Your task to perform on an android device: Find the nearest electronics store that's open today Image 0: 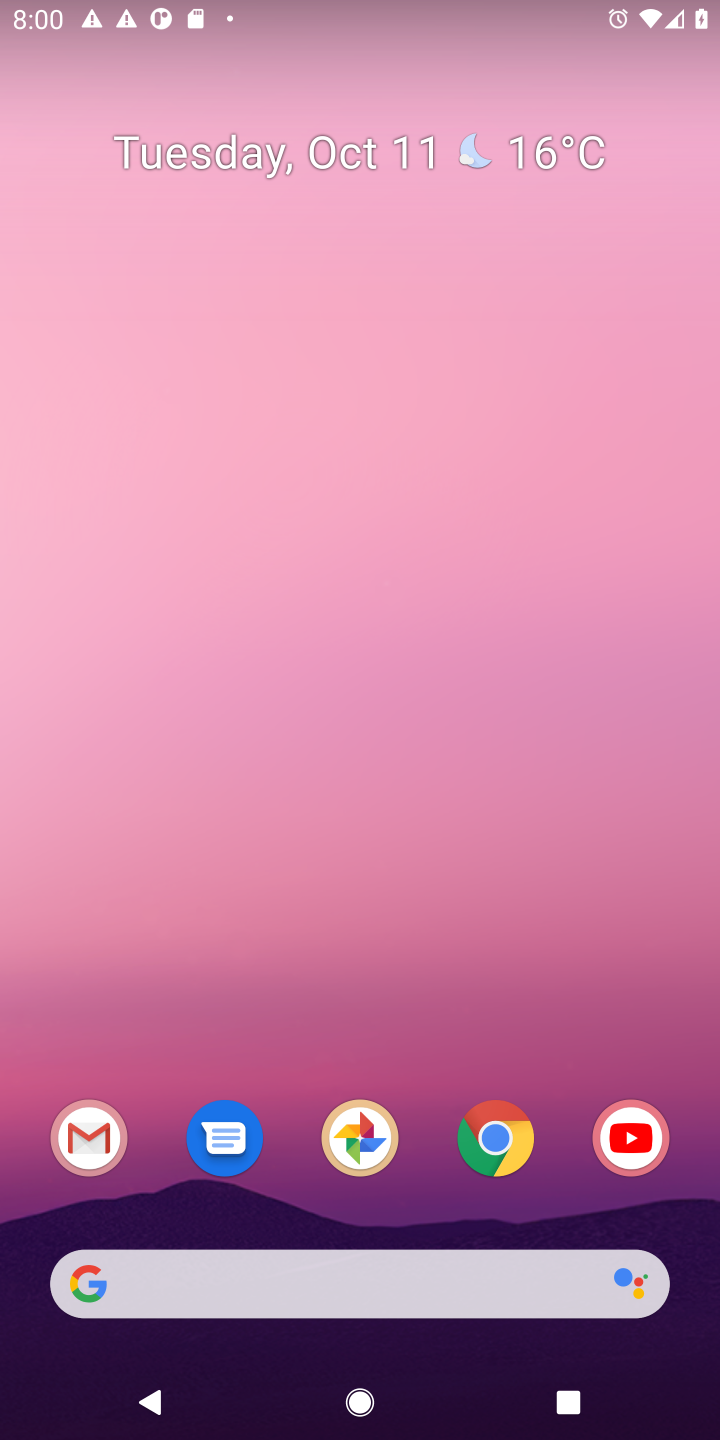
Step 0: click (376, 1276)
Your task to perform on an android device: Find the nearest electronics store that's open today Image 1: 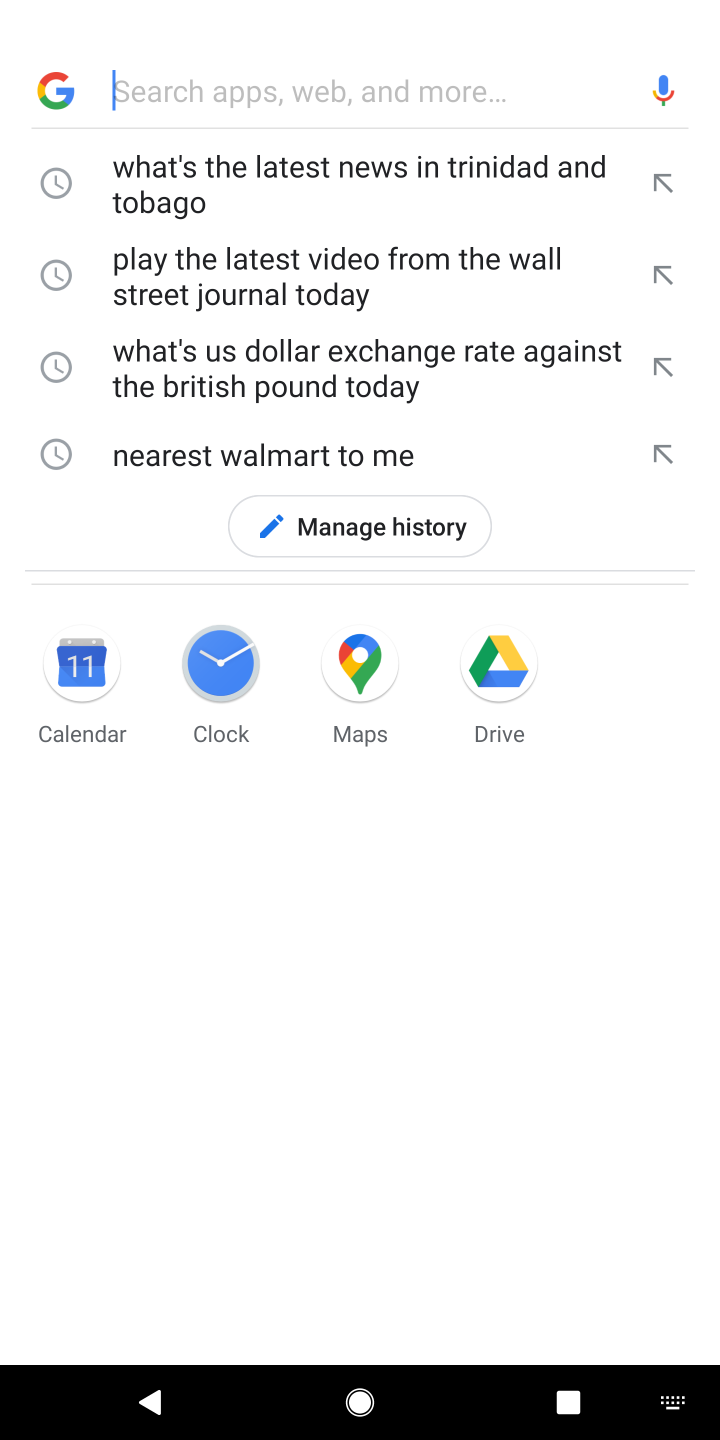
Step 1: type "Find the nearest electronics store that's open today"
Your task to perform on an android device: Find the nearest electronics store that's open today Image 2: 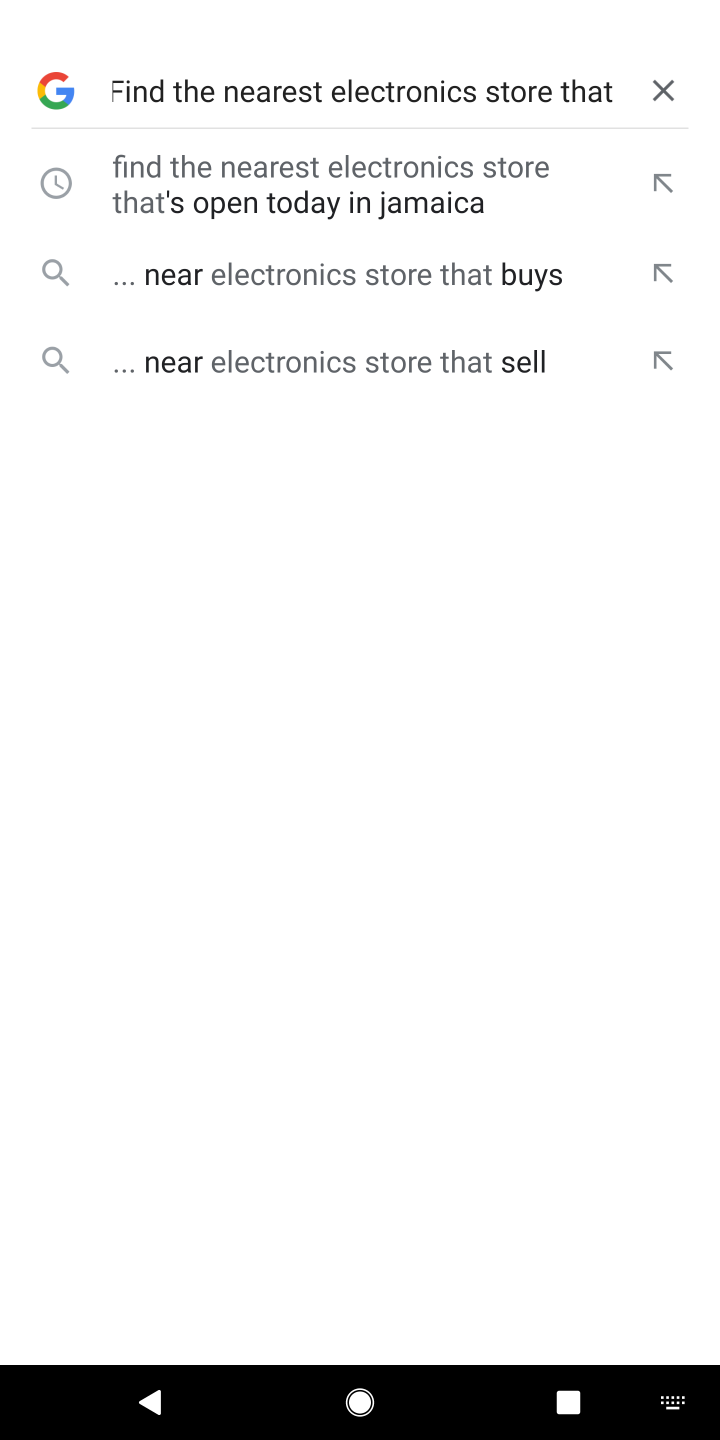
Step 2: type " open today"
Your task to perform on an android device: Find the nearest electronics store that's open today Image 3: 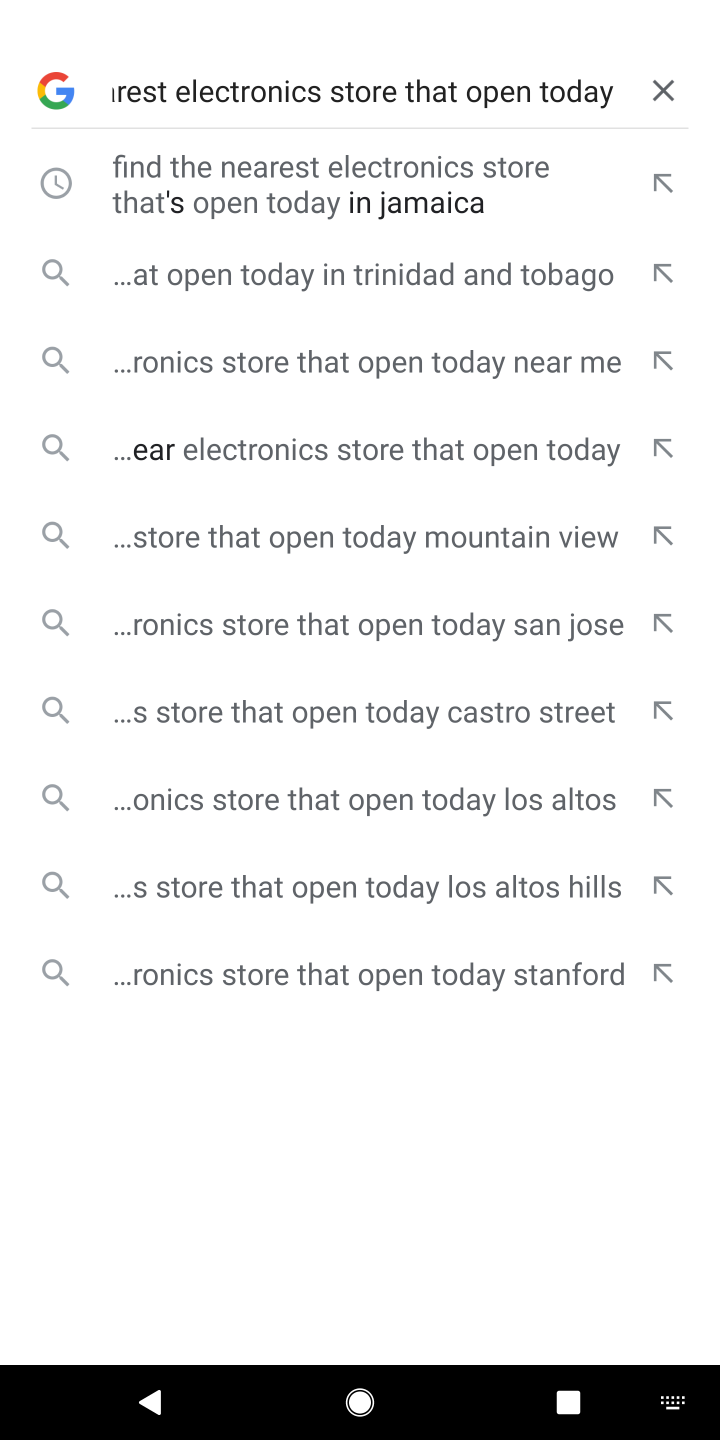
Step 3: click (378, 447)
Your task to perform on an android device: Find the nearest electronics store that's open today Image 4: 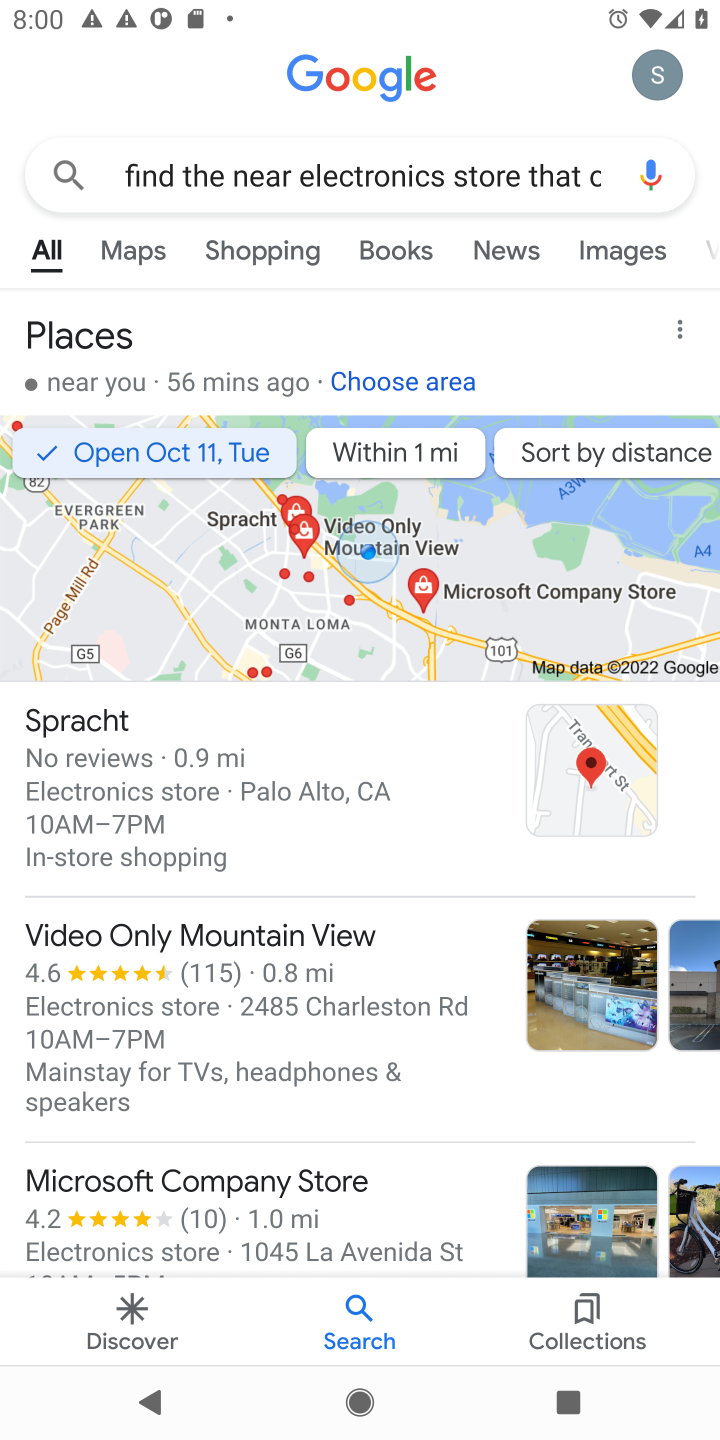
Step 4: task complete